Your task to perform on an android device: turn on improve location accuracy Image 0: 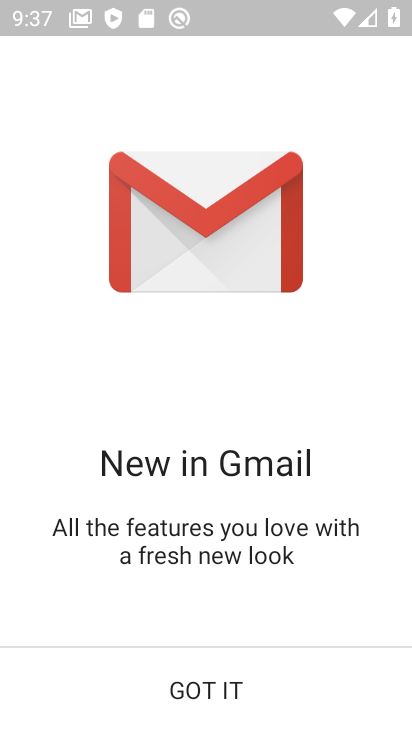
Step 0: press home button
Your task to perform on an android device: turn on improve location accuracy Image 1: 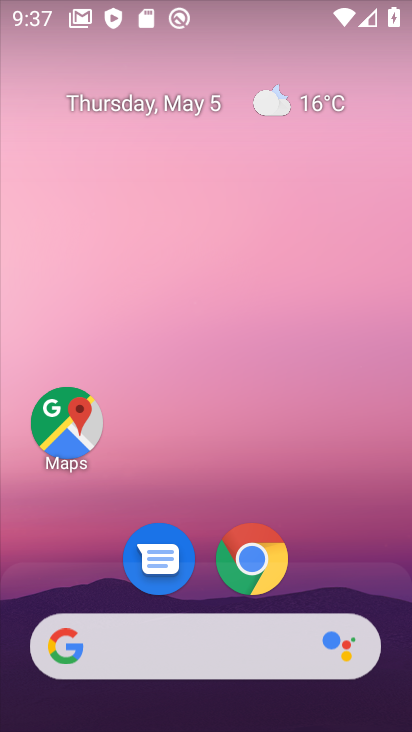
Step 1: drag from (199, 573) to (163, 3)
Your task to perform on an android device: turn on improve location accuracy Image 2: 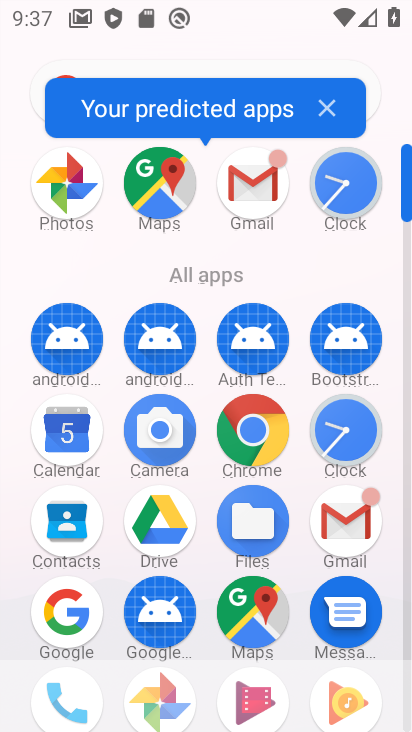
Step 2: drag from (206, 572) to (202, 184)
Your task to perform on an android device: turn on improve location accuracy Image 3: 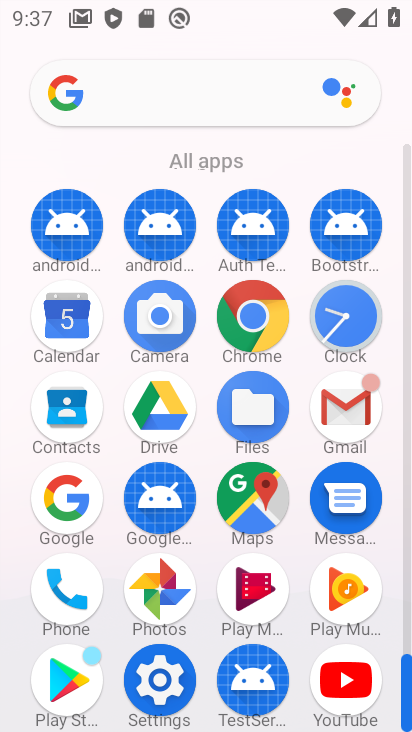
Step 3: click (163, 662)
Your task to perform on an android device: turn on improve location accuracy Image 4: 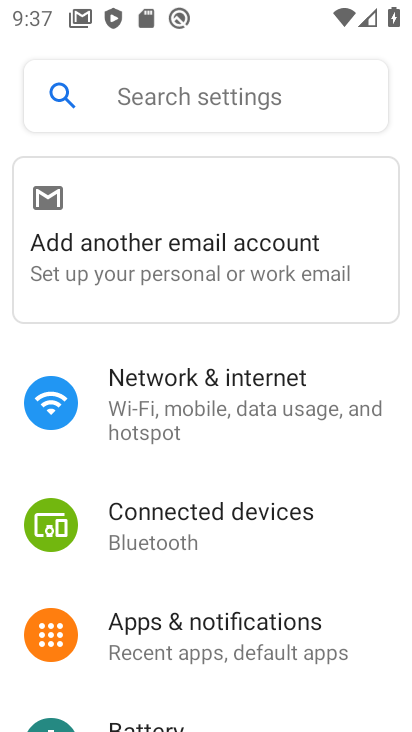
Step 4: drag from (238, 577) to (289, 45)
Your task to perform on an android device: turn on improve location accuracy Image 5: 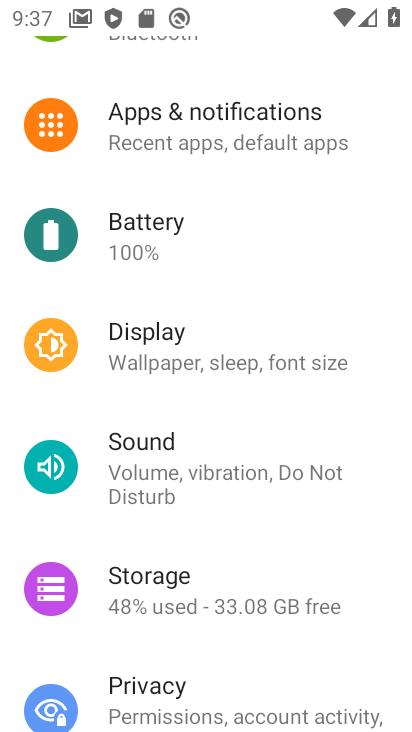
Step 5: drag from (191, 612) to (267, 173)
Your task to perform on an android device: turn on improve location accuracy Image 6: 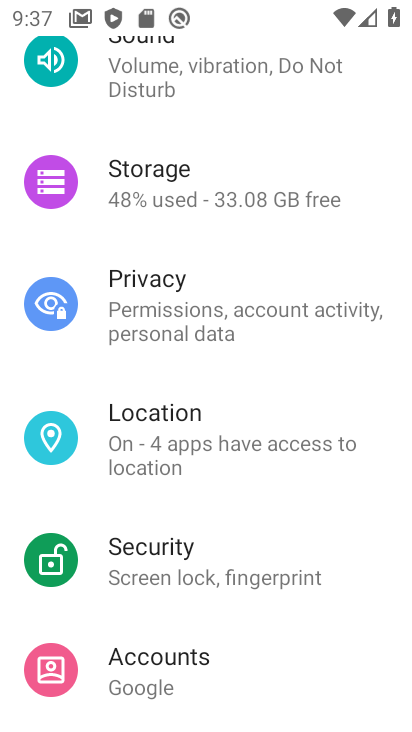
Step 6: click (198, 427)
Your task to perform on an android device: turn on improve location accuracy Image 7: 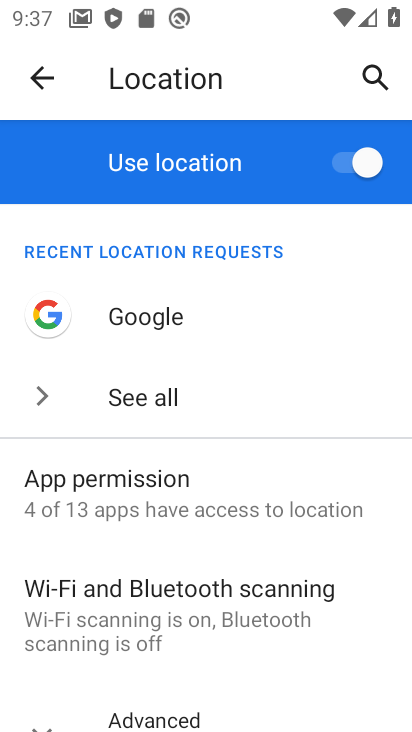
Step 7: drag from (190, 585) to (244, 207)
Your task to perform on an android device: turn on improve location accuracy Image 8: 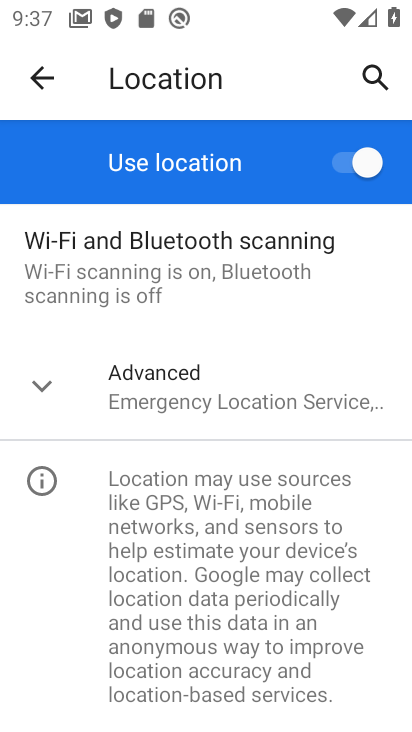
Step 8: click (189, 396)
Your task to perform on an android device: turn on improve location accuracy Image 9: 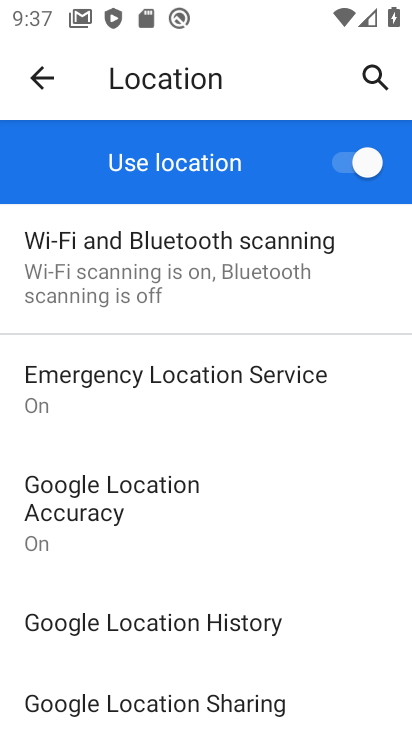
Step 9: drag from (175, 571) to (199, 414)
Your task to perform on an android device: turn on improve location accuracy Image 10: 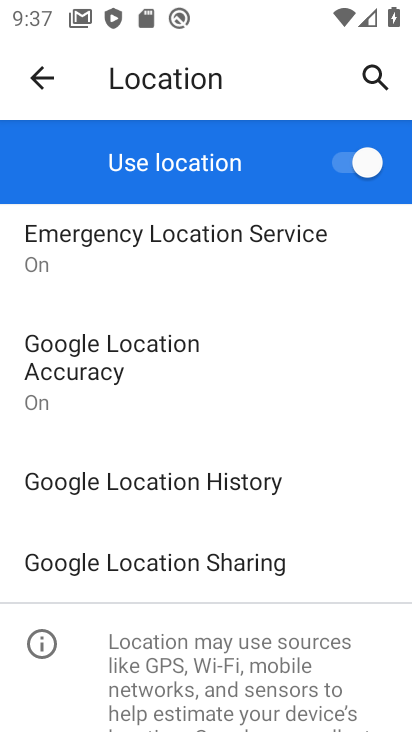
Step 10: click (140, 380)
Your task to perform on an android device: turn on improve location accuracy Image 11: 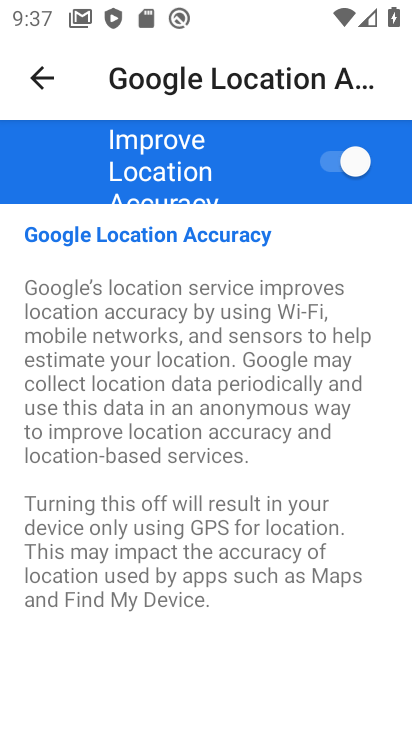
Step 11: task complete